Your task to perform on an android device: Go to ESPN.com Image 0: 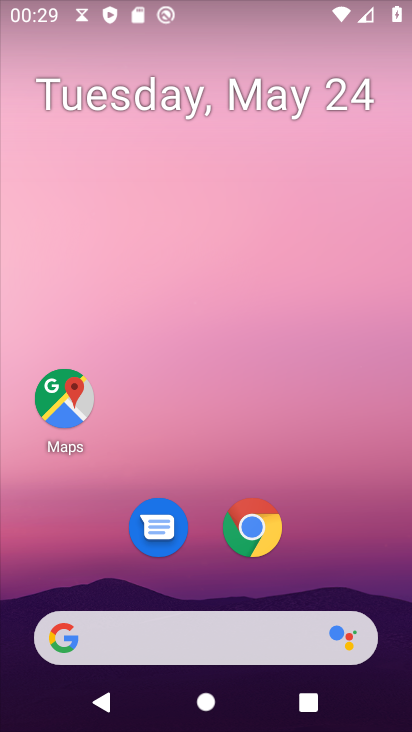
Step 0: press home button
Your task to perform on an android device: Go to ESPN.com Image 1: 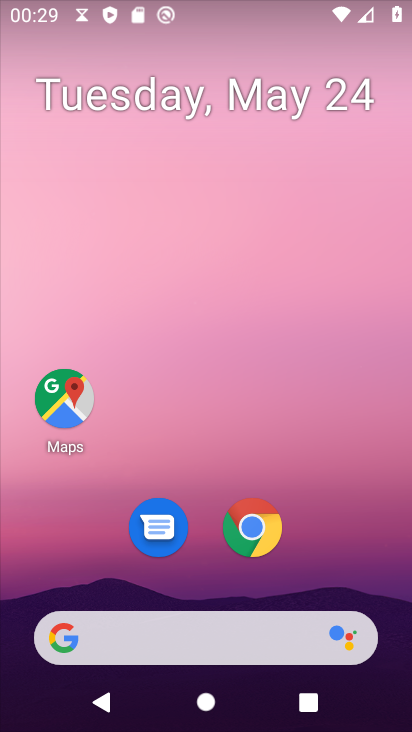
Step 1: click (252, 539)
Your task to perform on an android device: Go to ESPN.com Image 2: 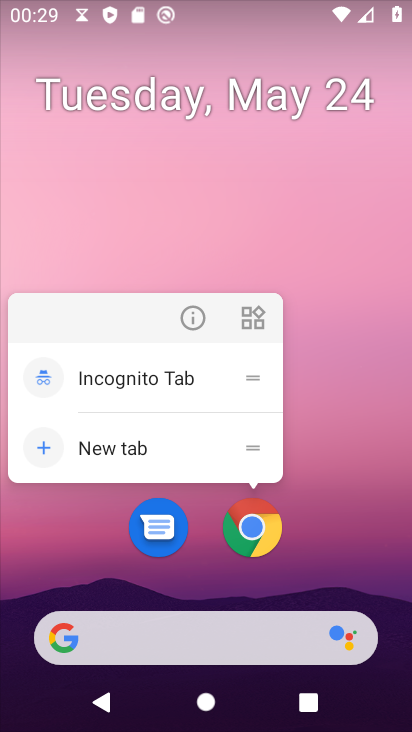
Step 2: click (259, 544)
Your task to perform on an android device: Go to ESPN.com Image 3: 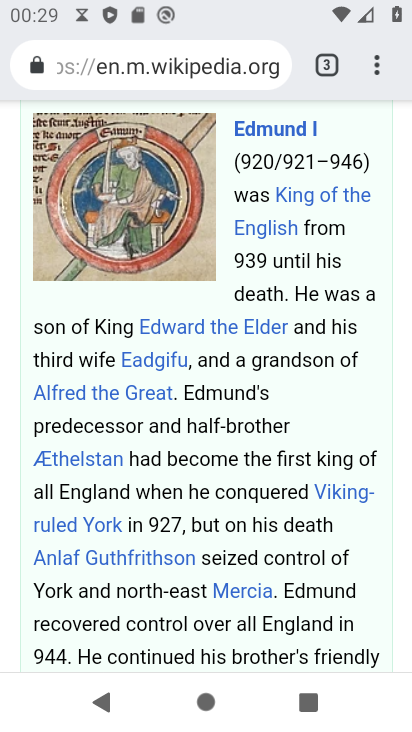
Step 3: drag from (382, 64) to (233, 145)
Your task to perform on an android device: Go to ESPN.com Image 4: 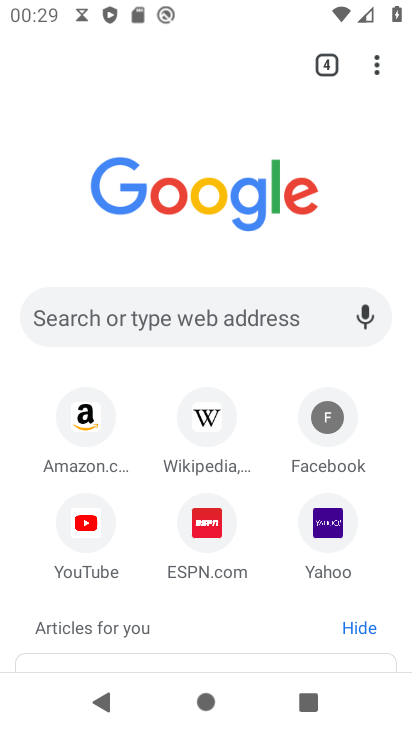
Step 4: click (216, 522)
Your task to perform on an android device: Go to ESPN.com Image 5: 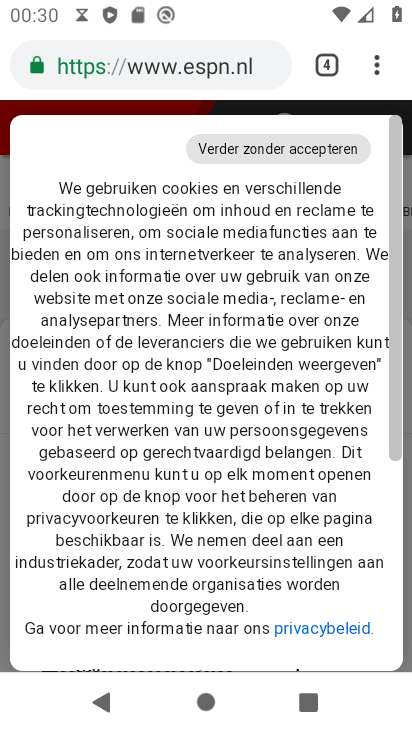
Step 5: task complete